Your task to perform on an android device: make emails show in primary in the gmail app Image 0: 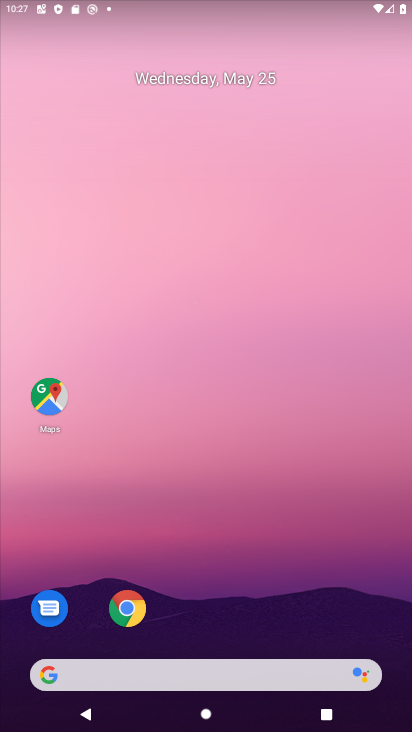
Step 0: drag from (220, 563) to (179, 19)
Your task to perform on an android device: make emails show in primary in the gmail app Image 1: 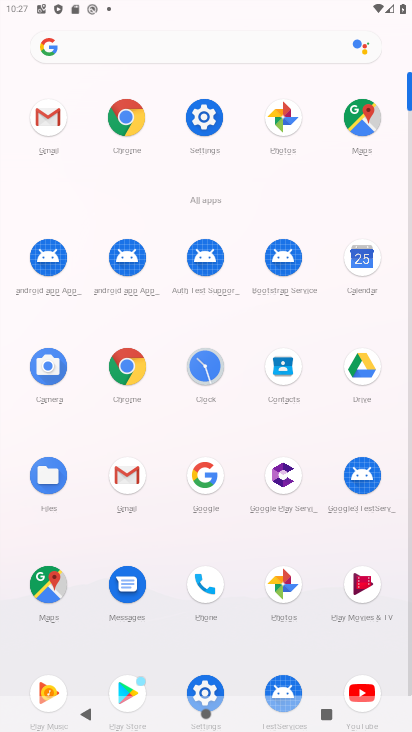
Step 1: click (48, 117)
Your task to perform on an android device: make emails show in primary in the gmail app Image 2: 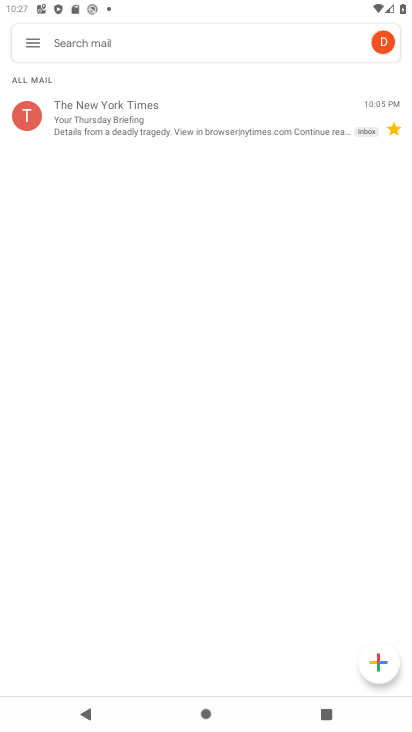
Step 2: click (37, 45)
Your task to perform on an android device: make emails show in primary in the gmail app Image 3: 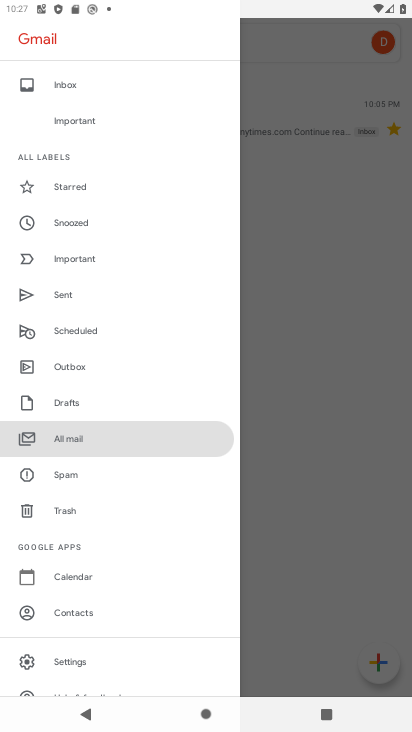
Step 3: click (77, 663)
Your task to perform on an android device: make emails show in primary in the gmail app Image 4: 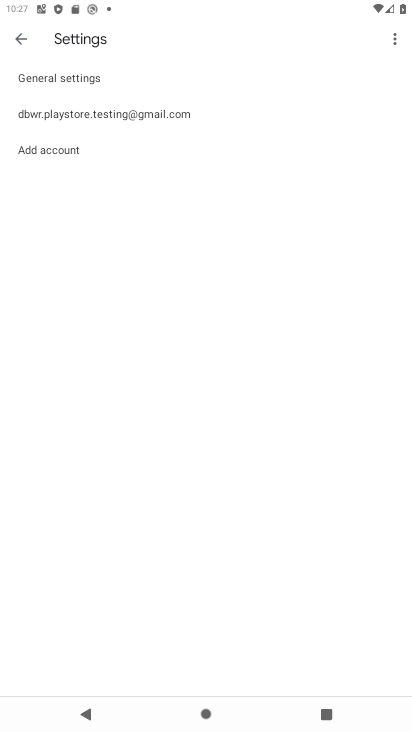
Step 4: click (67, 116)
Your task to perform on an android device: make emails show in primary in the gmail app Image 5: 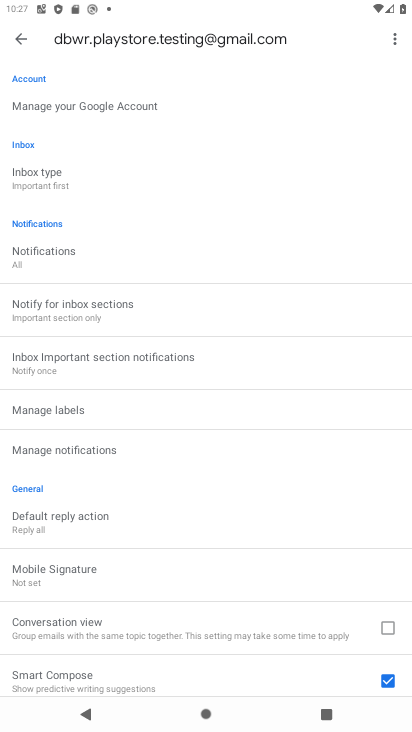
Step 5: click (40, 182)
Your task to perform on an android device: make emails show in primary in the gmail app Image 6: 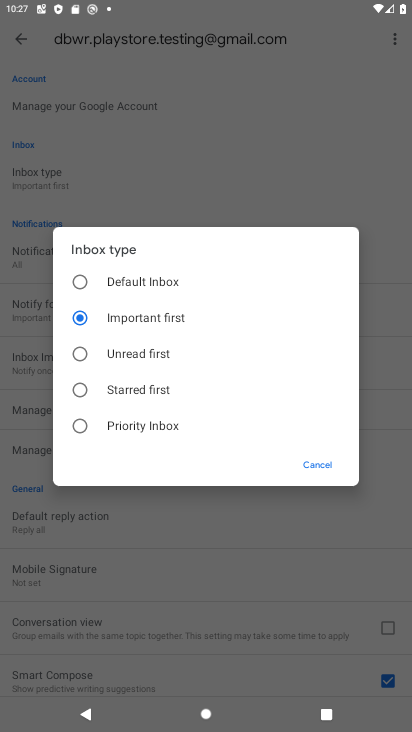
Step 6: click (87, 278)
Your task to perform on an android device: make emails show in primary in the gmail app Image 7: 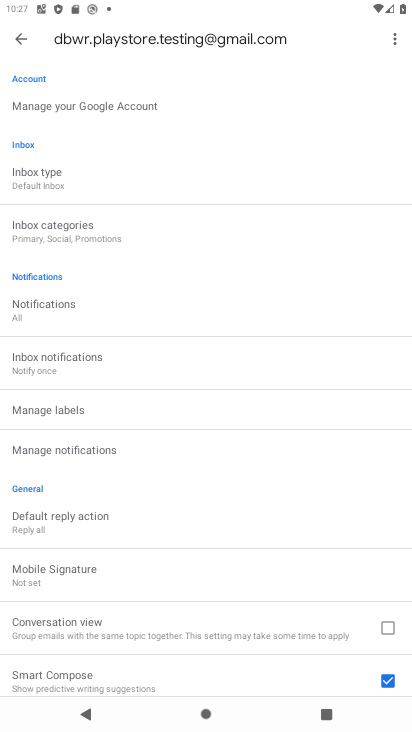
Step 7: click (72, 245)
Your task to perform on an android device: make emails show in primary in the gmail app Image 8: 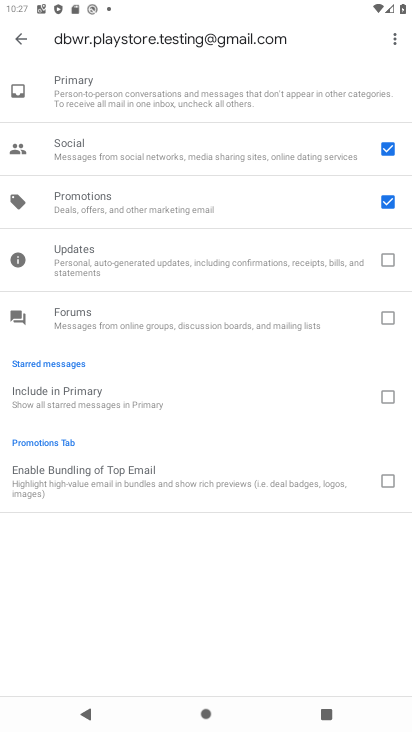
Step 8: click (389, 212)
Your task to perform on an android device: make emails show in primary in the gmail app Image 9: 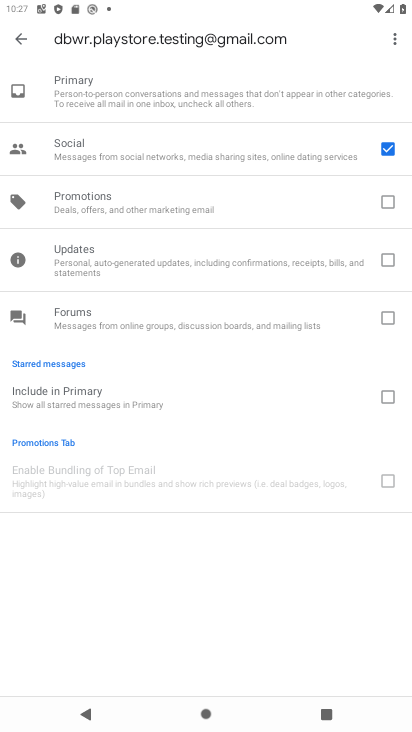
Step 9: click (382, 150)
Your task to perform on an android device: make emails show in primary in the gmail app Image 10: 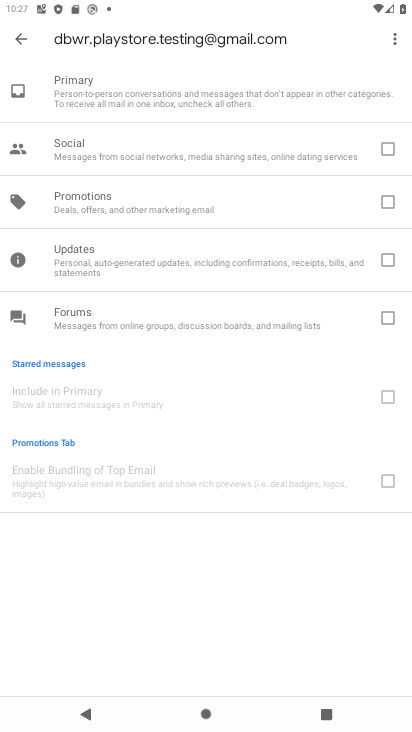
Step 10: task complete